Your task to perform on an android device: Open calendar and show me the fourth week of next month Image 0: 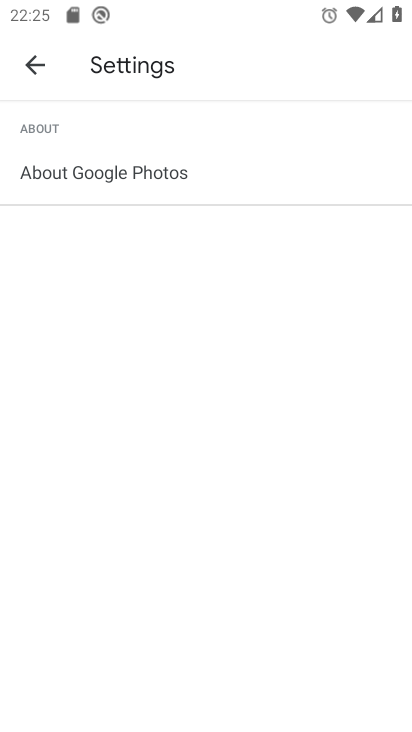
Step 0: press home button
Your task to perform on an android device: Open calendar and show me the fourth week of next month Image 1: 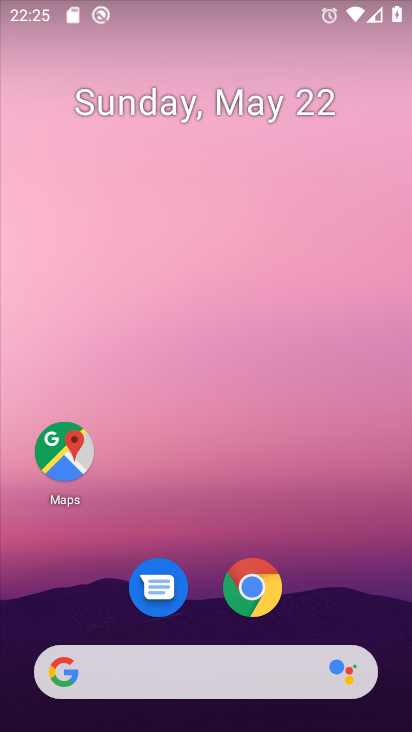
Step 1: drag from (239, 479) to (215, 0)
Your task to perform on an android device: Open calendar and show me the fourth week of next month Image 2: 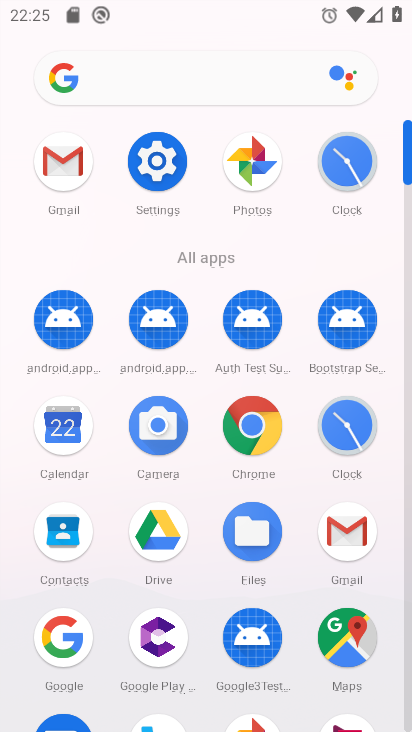
Step 2: click (69, 421)
Your task to perform on an android device: Open calendar and show me the fourth week of next month Image 3: 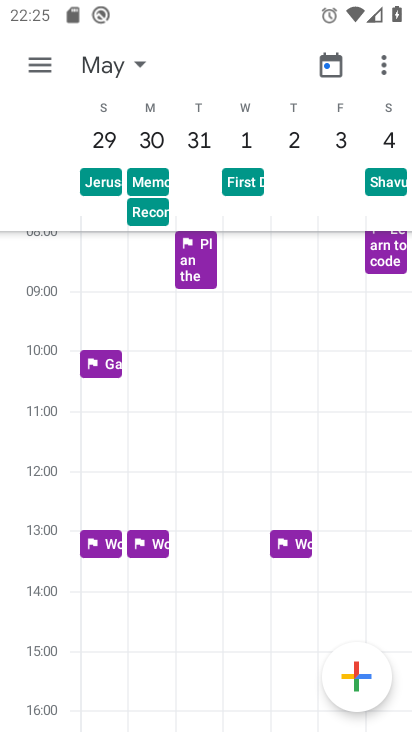
Step 3: task complete